Your task to perform on an android device: Is it going to rain tomorrow? Image 0: 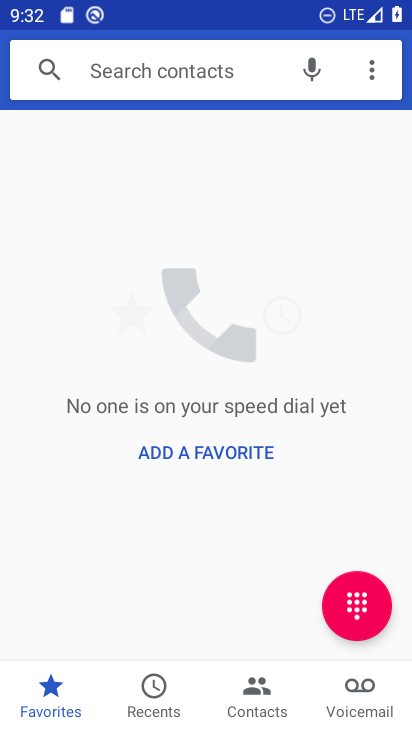
Step 0: press home button
Your task to perform on an android device: Is it going to rain tomorrow? Image 1: 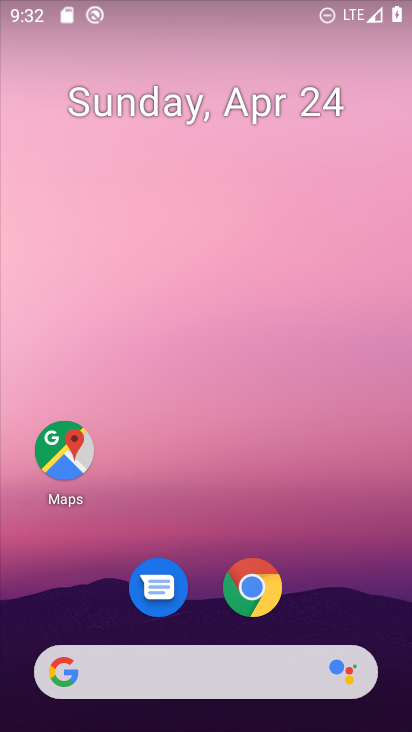
Step 1: drag from (379, 600) to (355, 197)
Your task to perform on an android device: Is it going to rain tomorrow? Image 2: 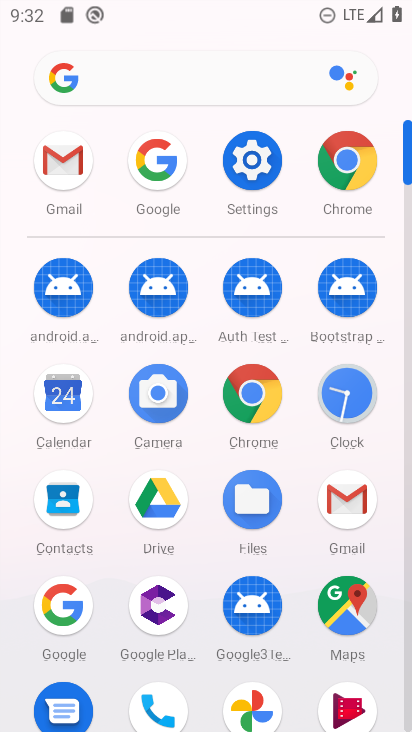
Step 2: click (253, 397)
Your task to perform on an android device: Is it going to rain tomorrow? Image 3: 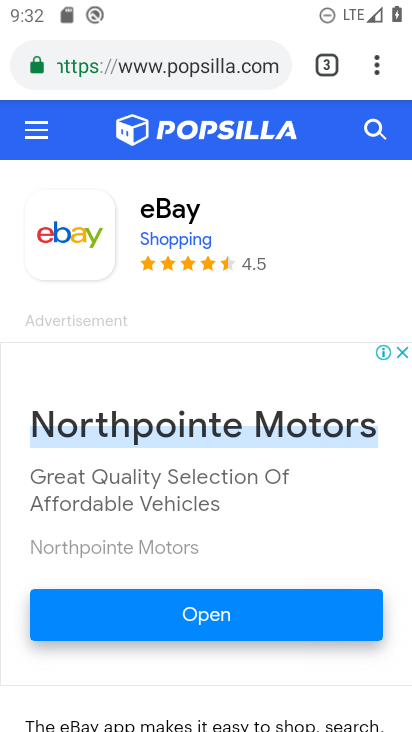
Step 3: click (320, 71)
Your task to perform on an android device: Is it going to rain tomorrow? Image 4: 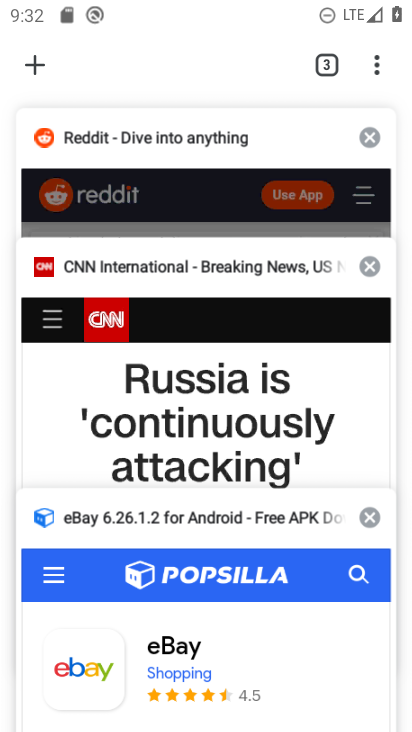
Step 4: click (23, 69)
Your task to perform on an android device: Is it going to rain tomorrow? Image 5: 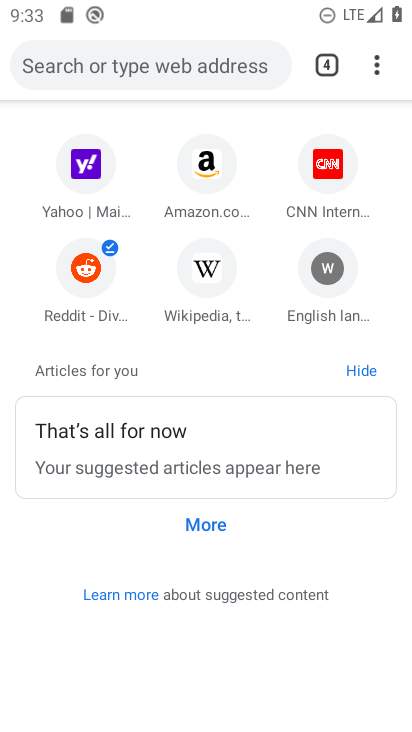
Step 5: click (127, 73)
Your task to perform on an android device: Is it going to rain tomorrow? Image 6: 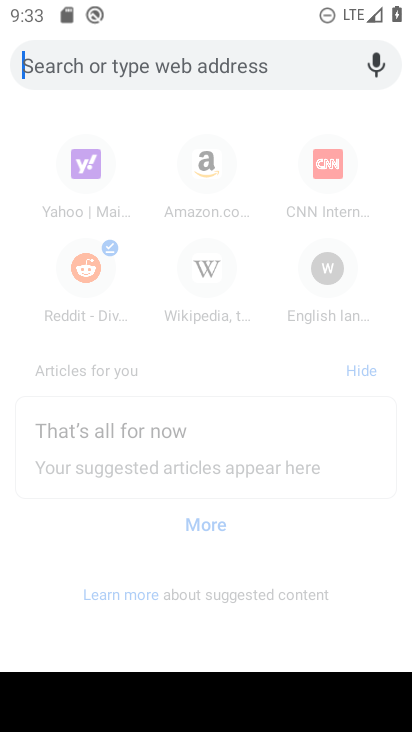
Step 6: type "is it going to rain tomorrow"
Your task to perform on an android device: Is it going to rain tomorrow? Image 7: 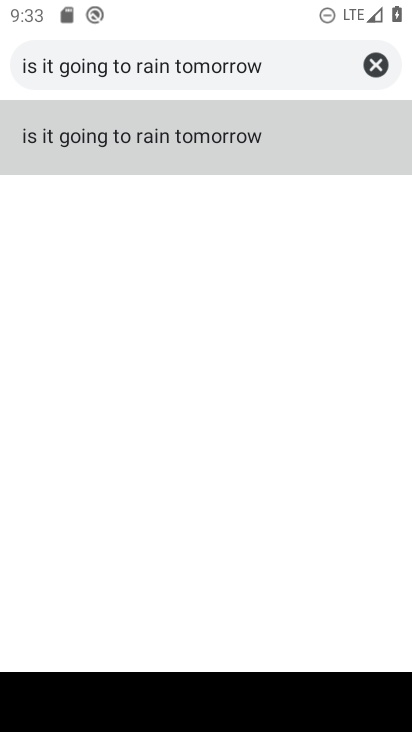
Step 7: click (107, 145)
Your task to perform on an android device: Is it going to rain tomorrow? Image 8: 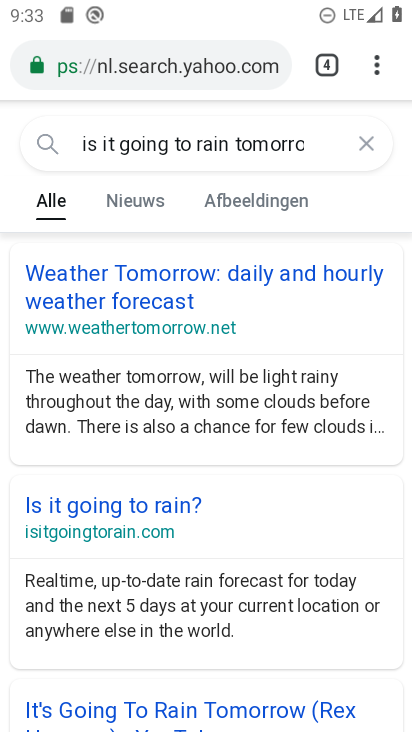
Step 8: click (114, 303)
Your task to perform on an android device: Is it going to rain tomorrow? Image 9: 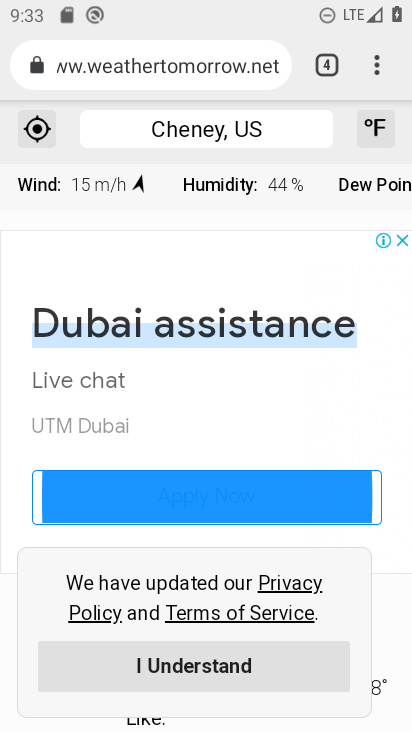
Step 9: task complete